Your task to perform on an android device: Go to Android settings Image 0: 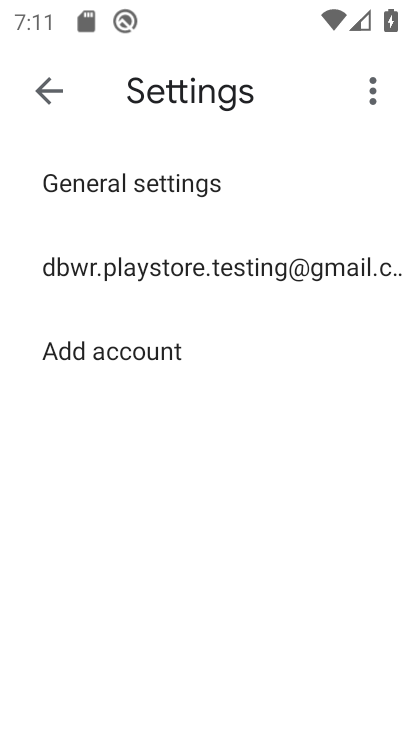
Step 0: press home button
Your task to perform on an android device: Go to Android settings Image 1: 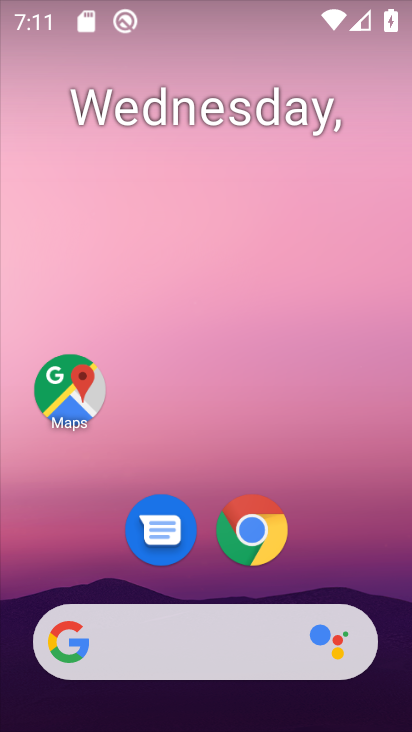
Step 1: drag from (399, 627) to (287, 17)
Your task to perform on an android device: Go to Android settings Image 2: 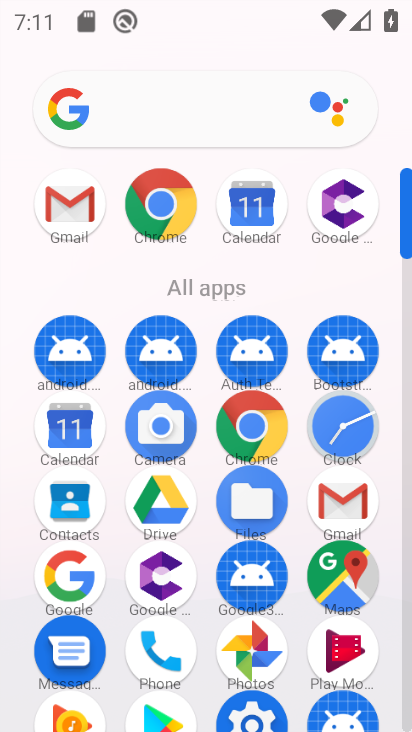
Step 2: drag from (296, 683) to (294, 148)
Your task to perform on an android device: Go to Android settings Image 3: 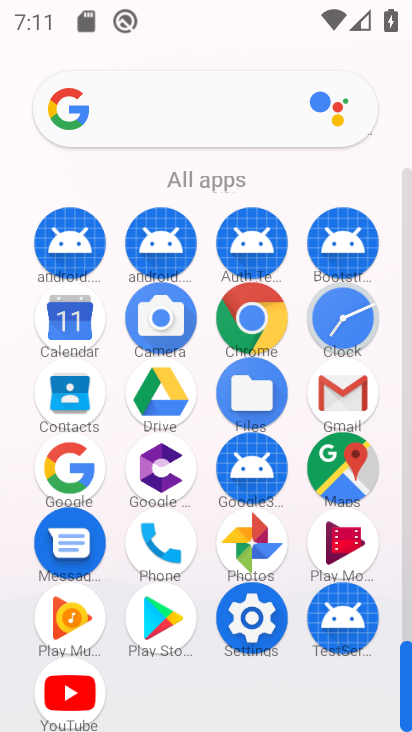
Step 3: click (243, 615)
Your task to perform on an android device: Go to Android settings Image 4: 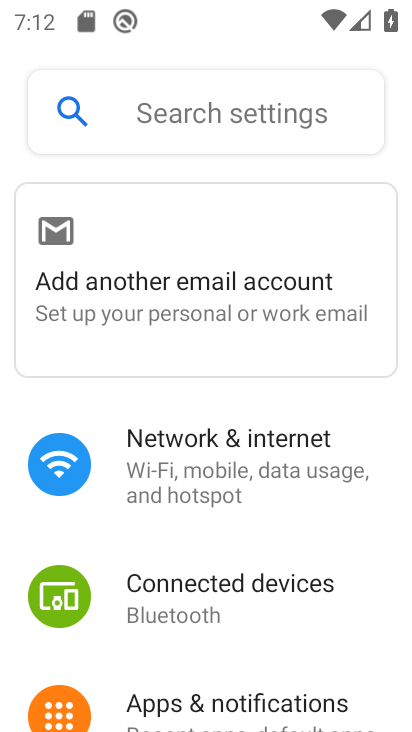
Step 4: drag from (237, 615) to (274, 48)
Your task to perform on an android device: Go to Android settings Image 5: 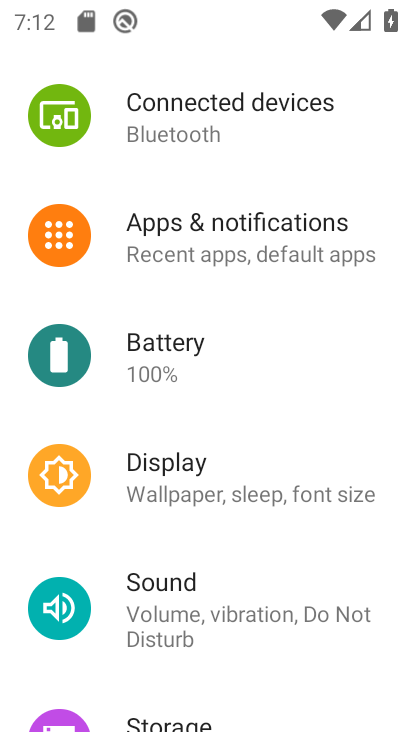
Step 5: drag from (161, 626) to (209, 109)
Your task to perform on an android device: Go to Android settings Image 6: 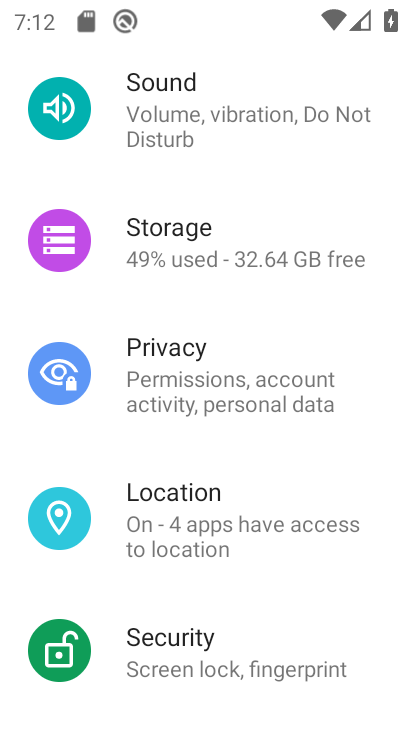
Step 6: drag from (201, 601) to (301, 81)
Your task to perform on an android device: Go to Android settings Image 7: 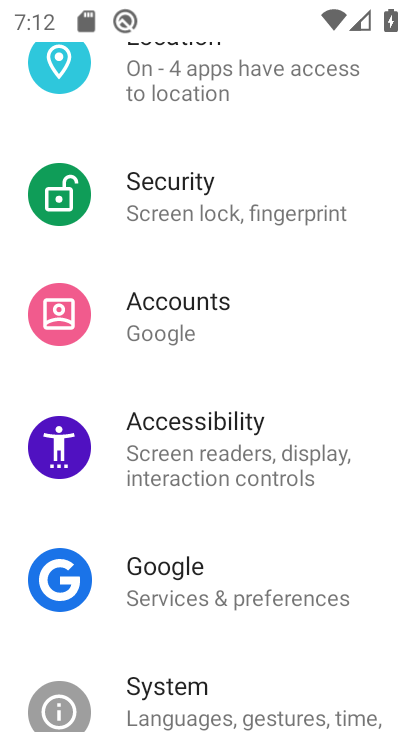
Step 7: drag from (249, 613) to (303, 134)
Your task to perform on an android device: Go to Android settings Image 8: 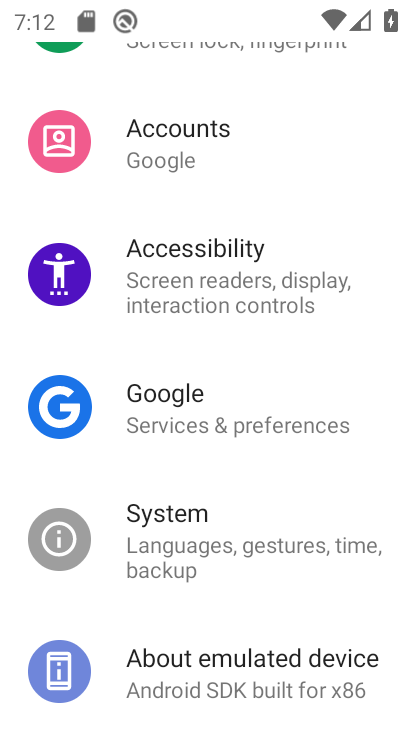
Step 8: click (265, 700)
Your task to perform on an android device: Go to Android settings Image 9: 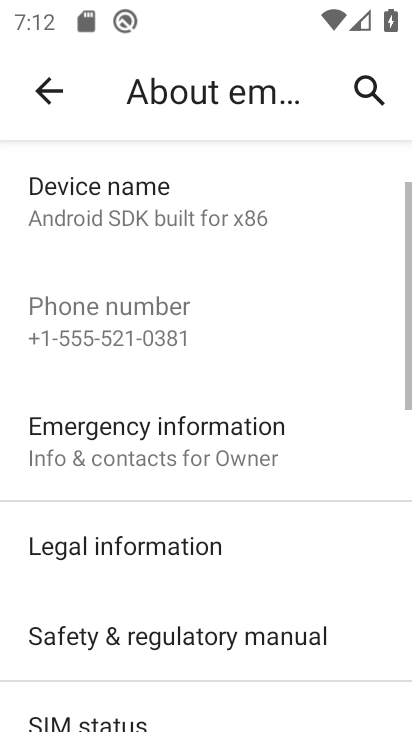
Step 9: drag from (126, 591) to (160, 248)
Your task to perform on an android device: Go to Android settings Image 10: 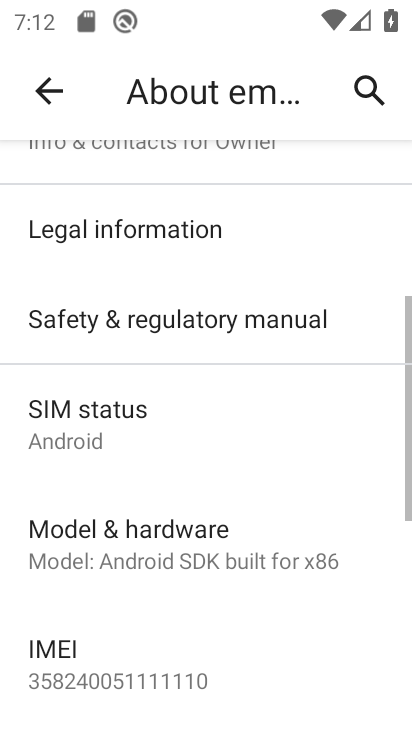
Step 10: drag from (245, 285) to (236, 250)
Your task to perform on an android device: Go to Android settings Image 11: 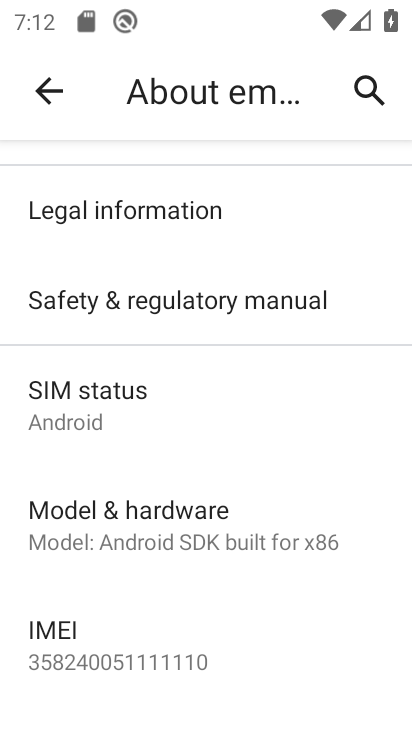
Step 11: drag from (236, 250) to (188, 544)
Your task to perform on an android device: Go to Android settings Image 12: 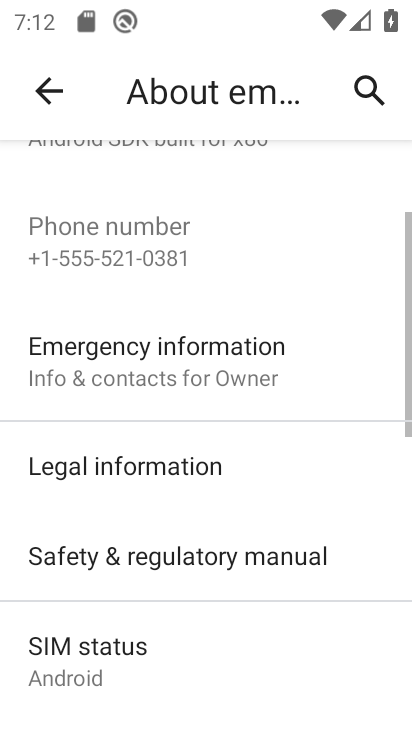
Step 12: drag from (173, 285) to (206, 582)
Your task to perform on an android device: Go to Android settings Image 13: 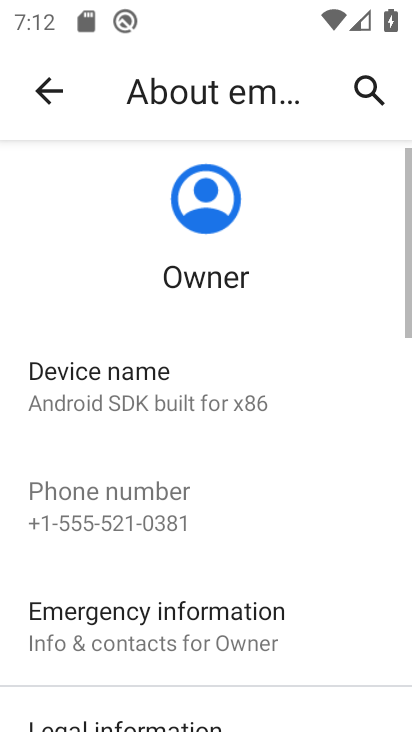
Step 13: drag from (201, 582) to (215, 116)
Your task to perform on an android device: Go to Android settings Image 14: 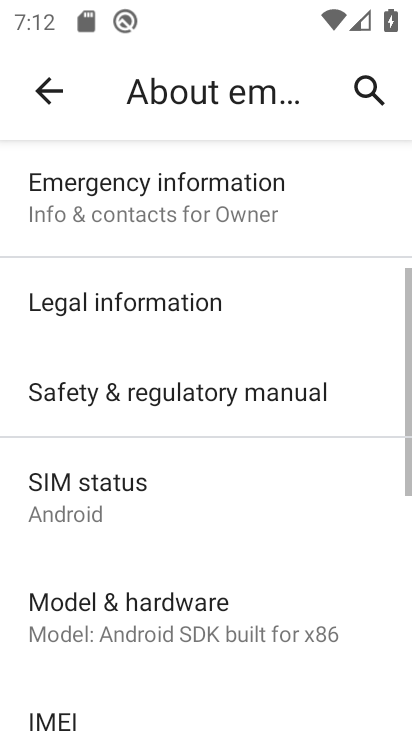
Step 14: drag from (136, 579) to (160, 228)
Your task to perform on an android device: Go to Android settings Image 15: 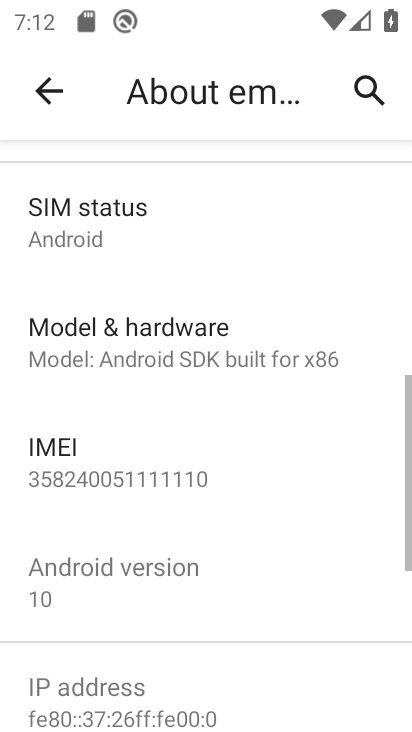
Step 15: click (186, 586)
Your task to perform on an android device: Go to Android settings Image 16: 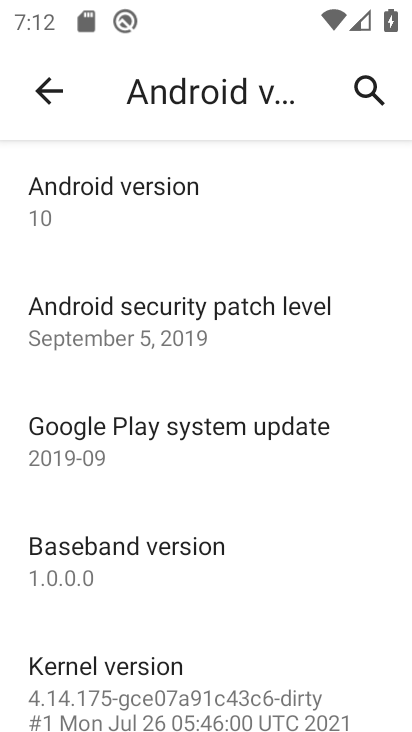
Step 16: task complete